Your task to perform on an android device: Clear the cart on amazon. Add "bose soundlink" to the cart on amazon Image 0: 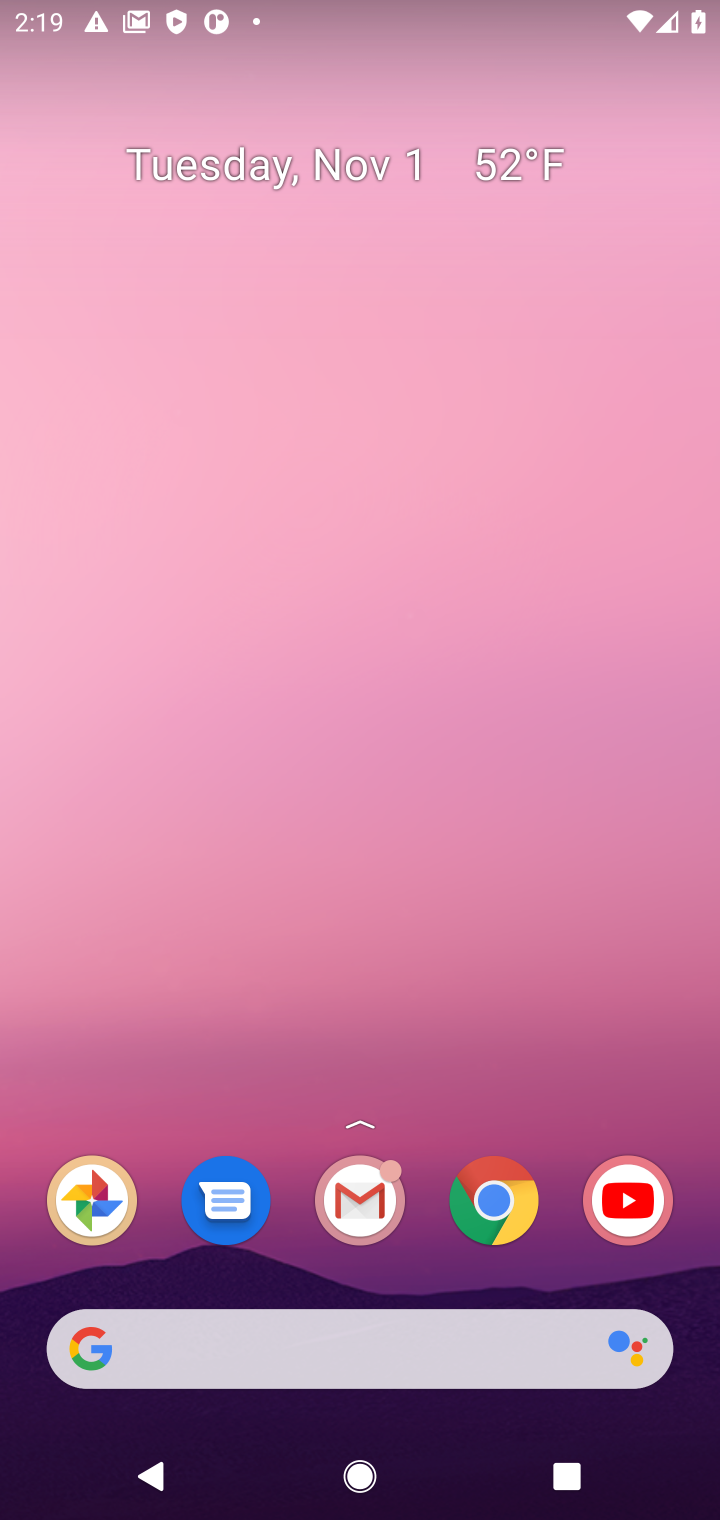
Step 0: click (97, 1352)
Your task to perform on an android device: Clear the cart on amazon. Add "bose soundlink" to the cart on amazon Image 1: 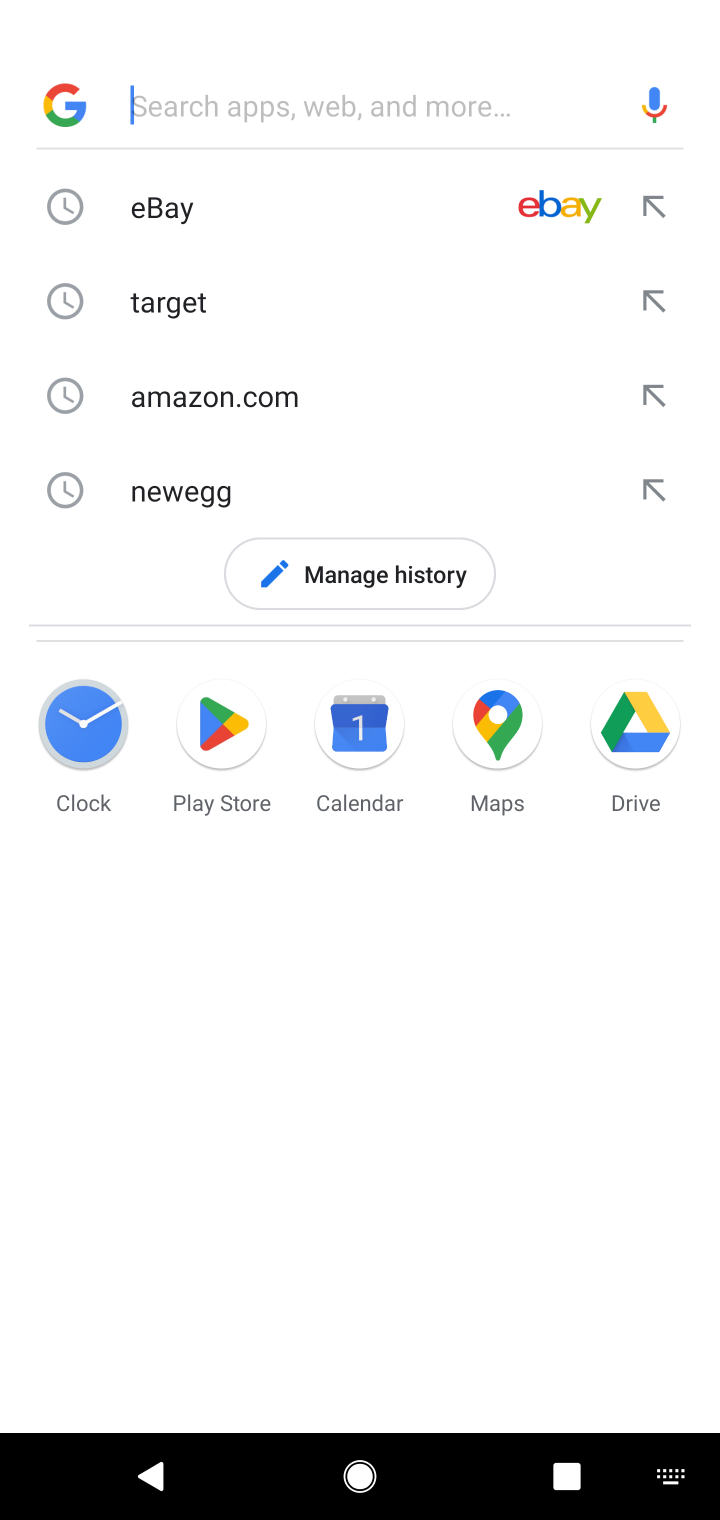
Step 1: type "amazon"
Your task to perform on an android device: Clear the cart on amazon. Add "bose soundlink" to the cart on amazon Image 2: 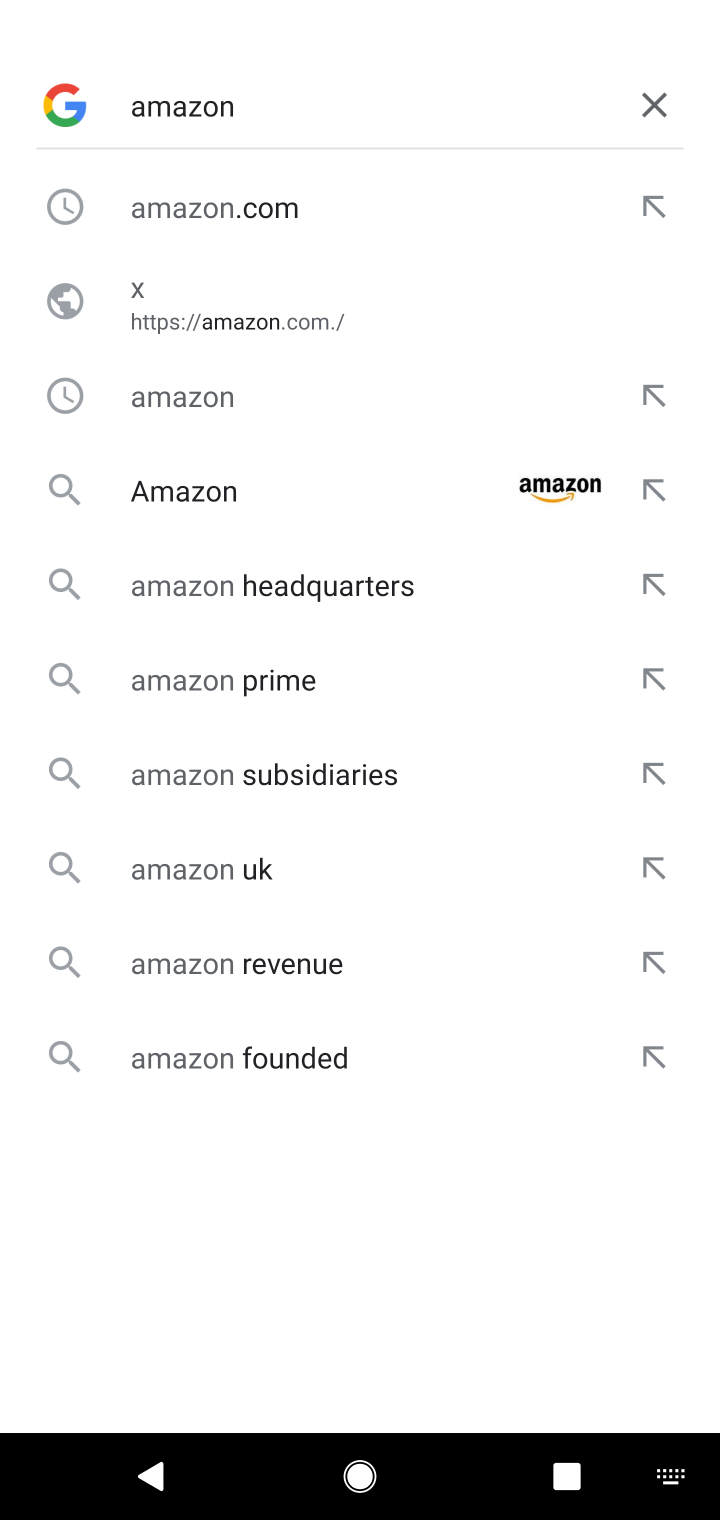
Step 2: click (266, 216)
Your task to perform on an android device: Clear the cart on amazon. Add "bose soundlink" to the cart on amazon Image 3: 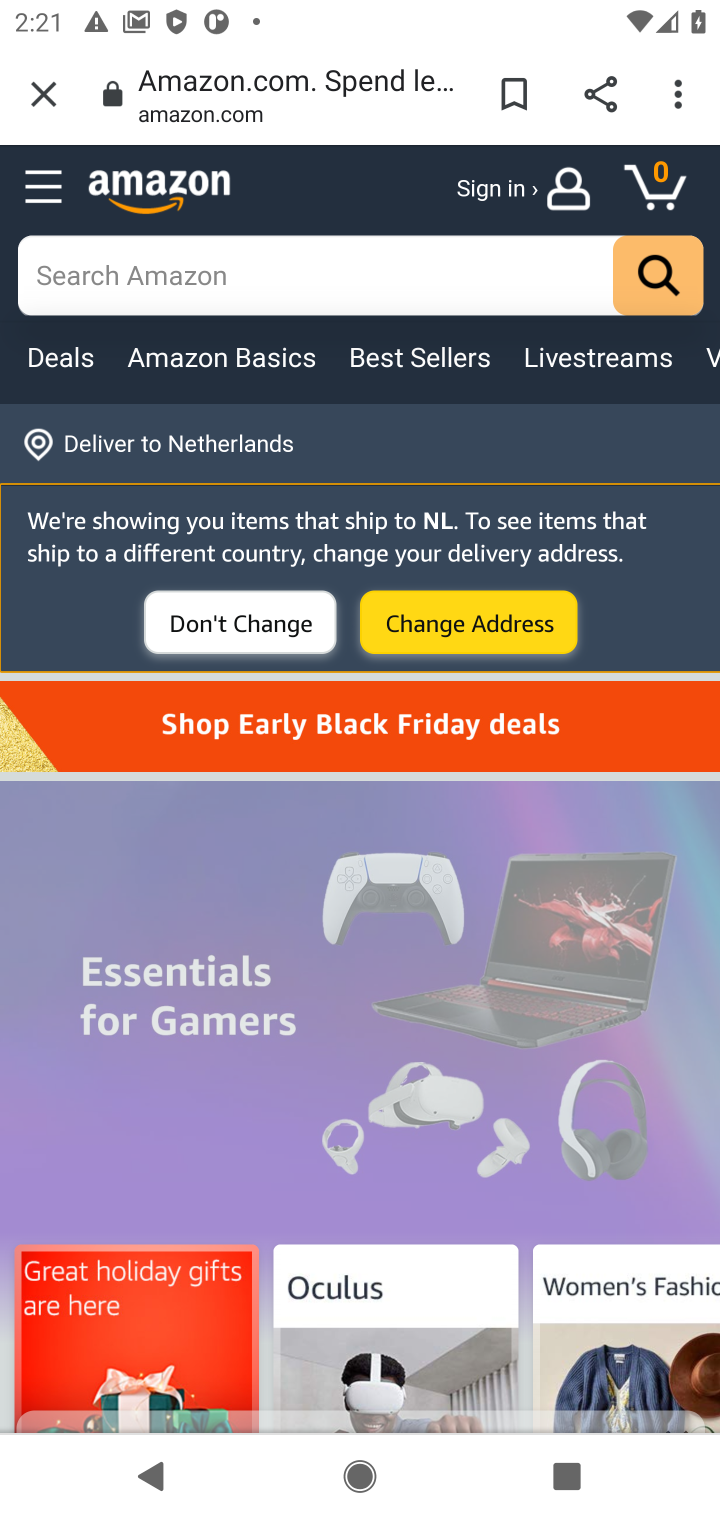
Step 3: click (328, 282)
Your task to perform on an android device: Clear the cart on amazon. Add "bose soundlink" to the cart on amazon Image 4: 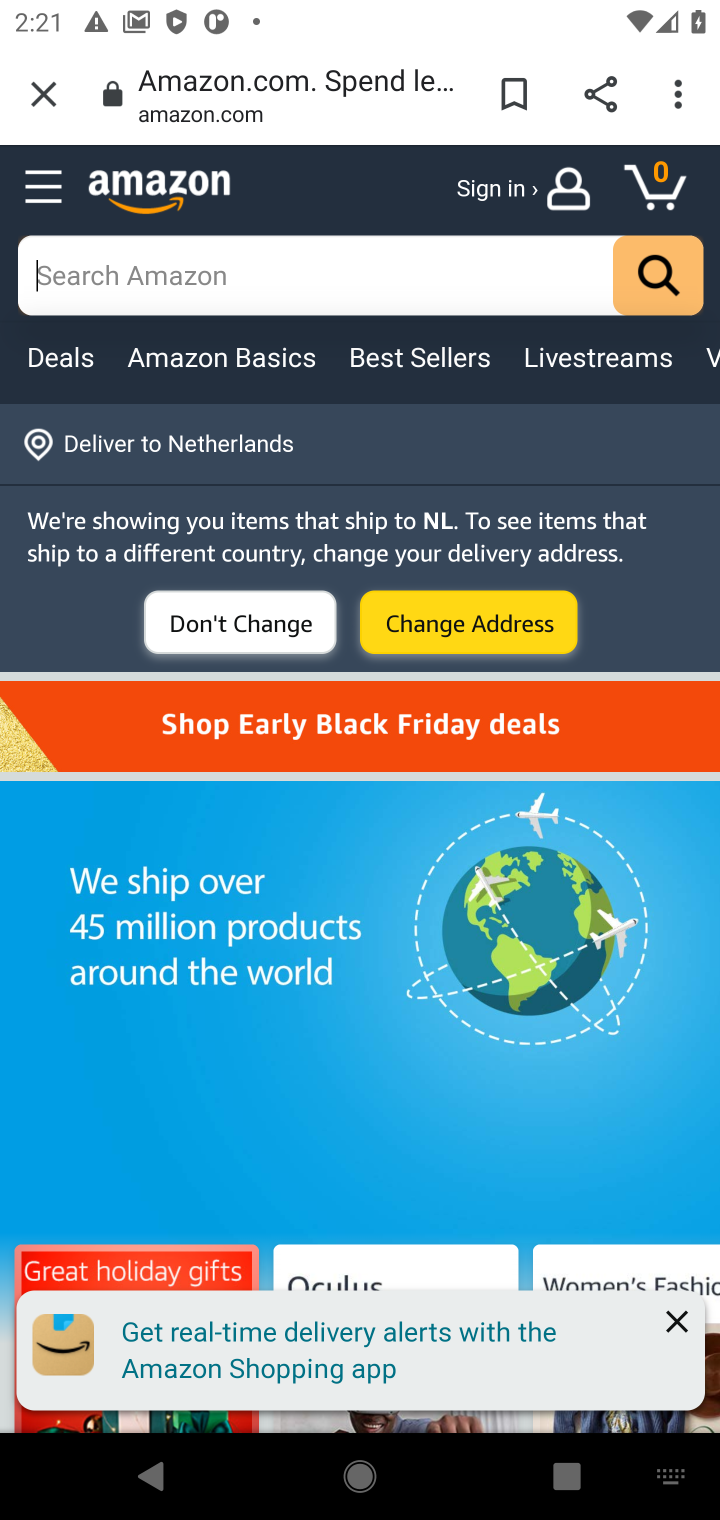
Step 4: type "bose soundlink"
Your task to perform on an android device: Clear the cart on amazon. Add "bose soundlink" to the cart on amazon Image 5: 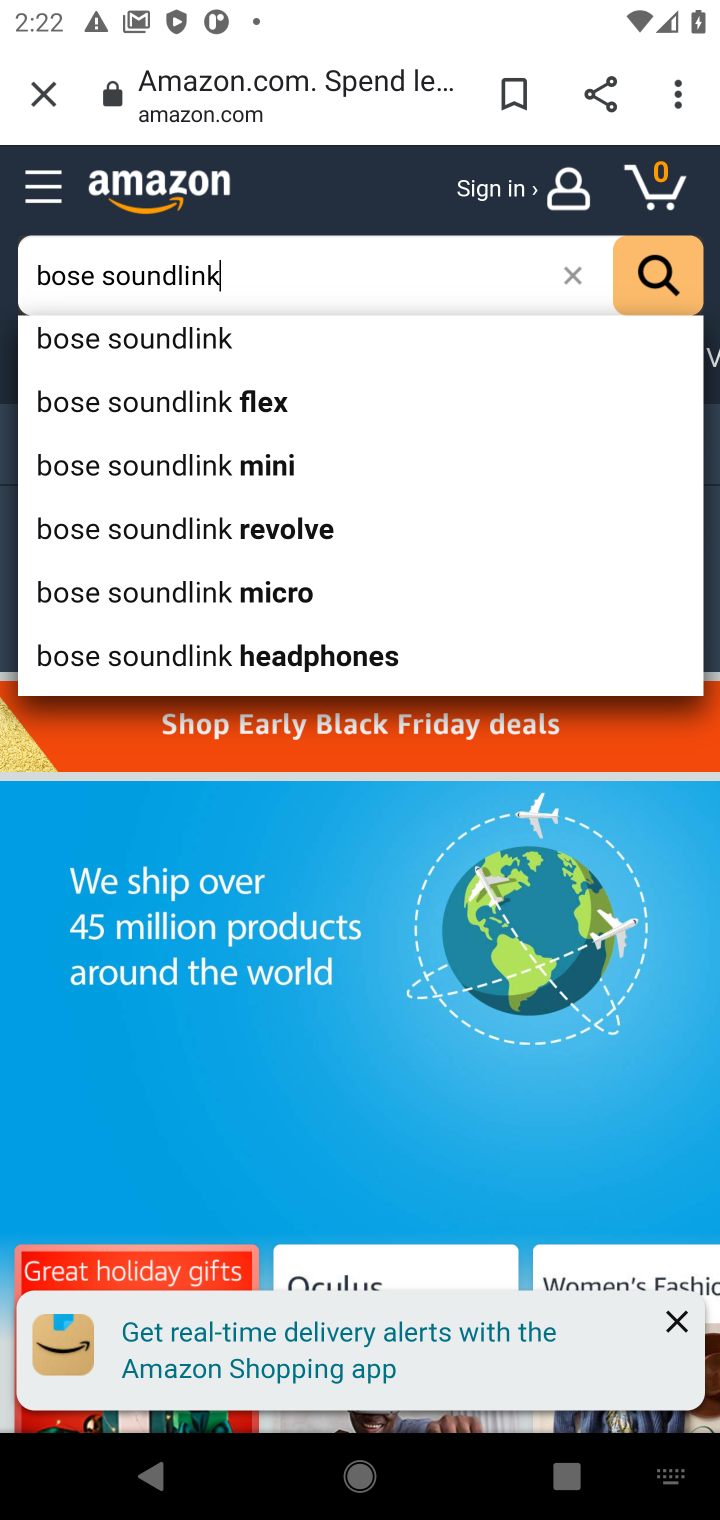
Step 5: click (280, 344)
Your task to perform on an android device: Clear the cart on amazon. Add "bose soundlink" to the cart on amazon Image 6: 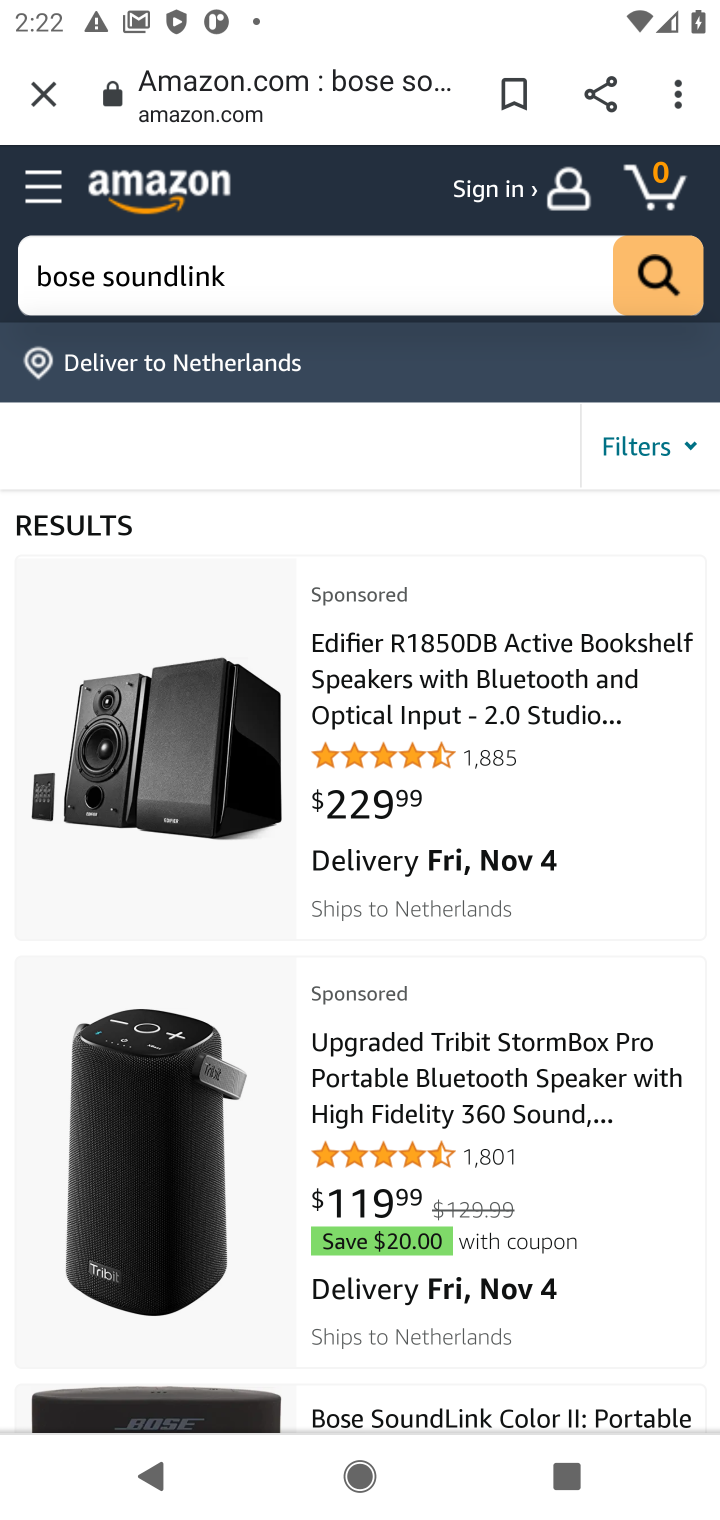
Step 6: click (225, 733)
Your task to perform on an android device: Clear the cart on amazon. Add "bose soundlink" to the cart on amazon Image 7: 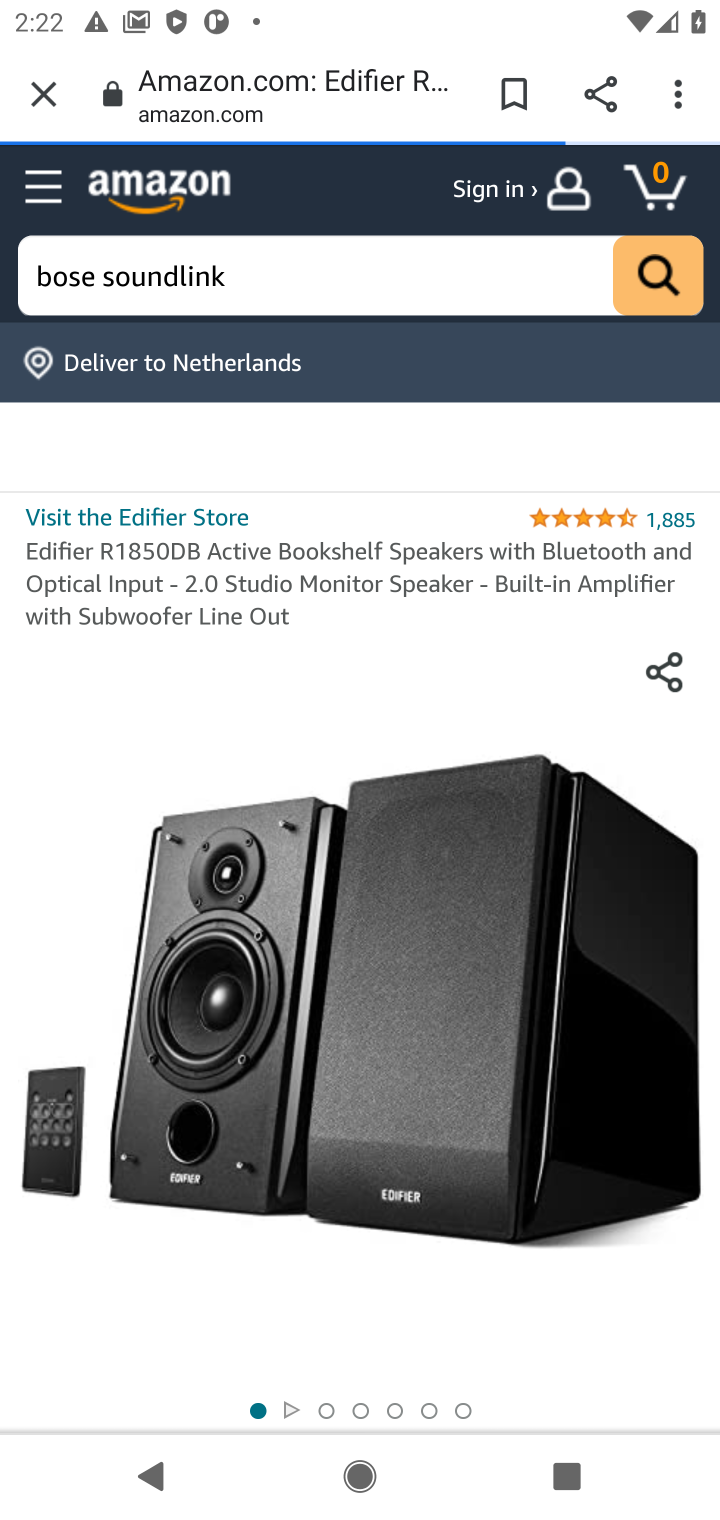
Step 7: drag from (420, 1243) to (466, 497)
Your task to perform on an android device: Clear the cart on amazon. Add "bose soundlink" to the cart on amazon Image 8: 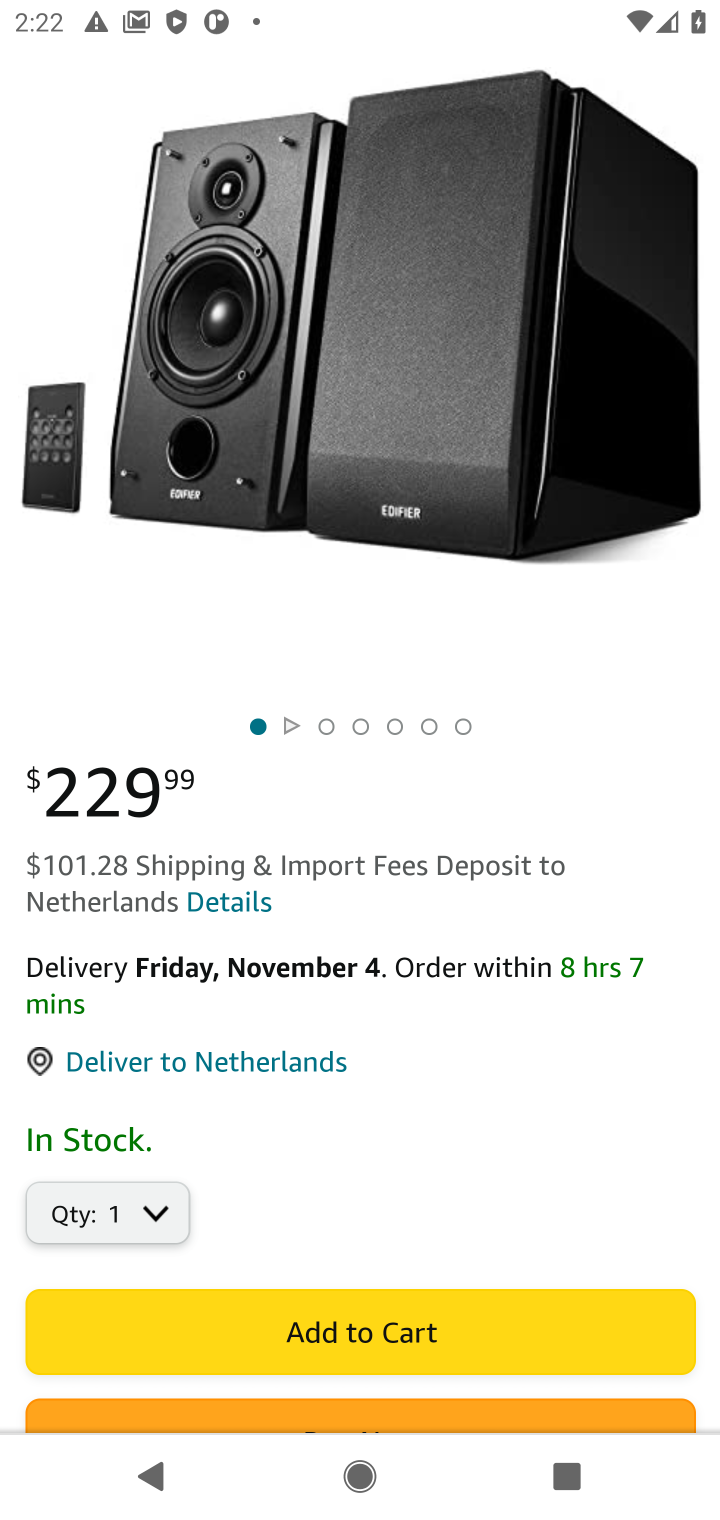
Step 8: drag from (505, 1302) to (525, 143)
Your task to perform on an android device: Clear the cart on amazon. Add "bose soundlink" to the cart on amazon Image 9: 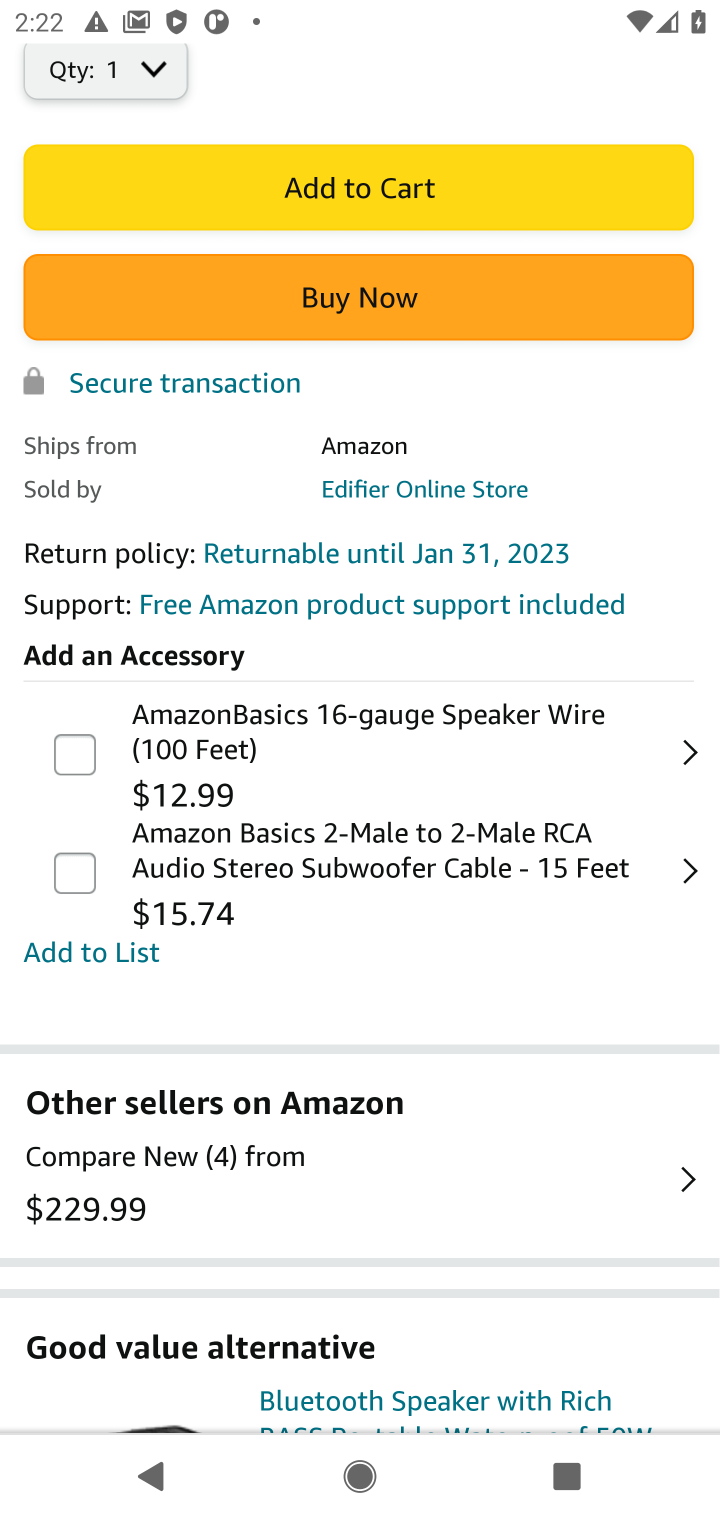
Step 9: click (369, 378)
Your task to perform on an android device: Clear the cart on amazon. Add "bose soundlink" to the cart on amazon Image 10: 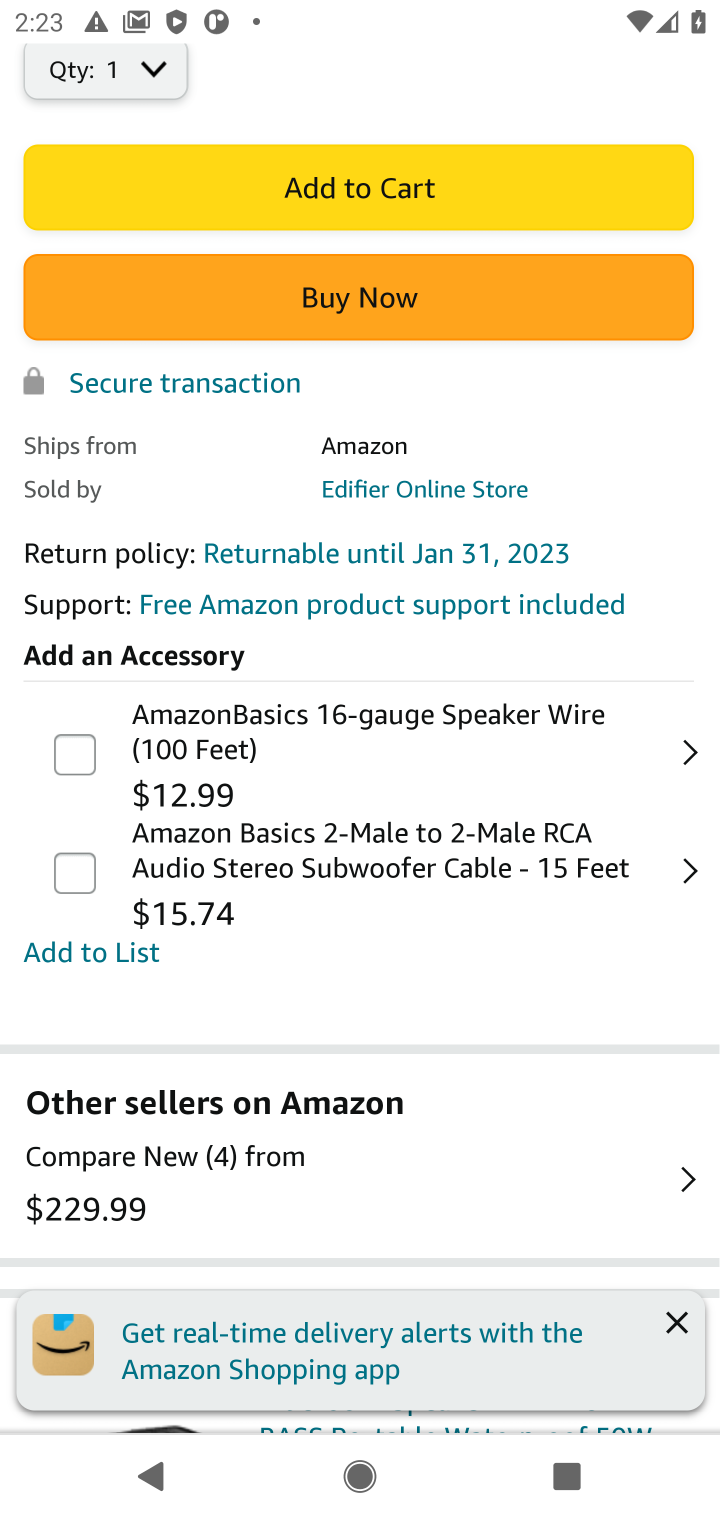
Step 10: click (329, 177)
Your task to perform on an android device: Clear the cart on amazon. Add "bose soundlink" to the cart on amazon Image 11: 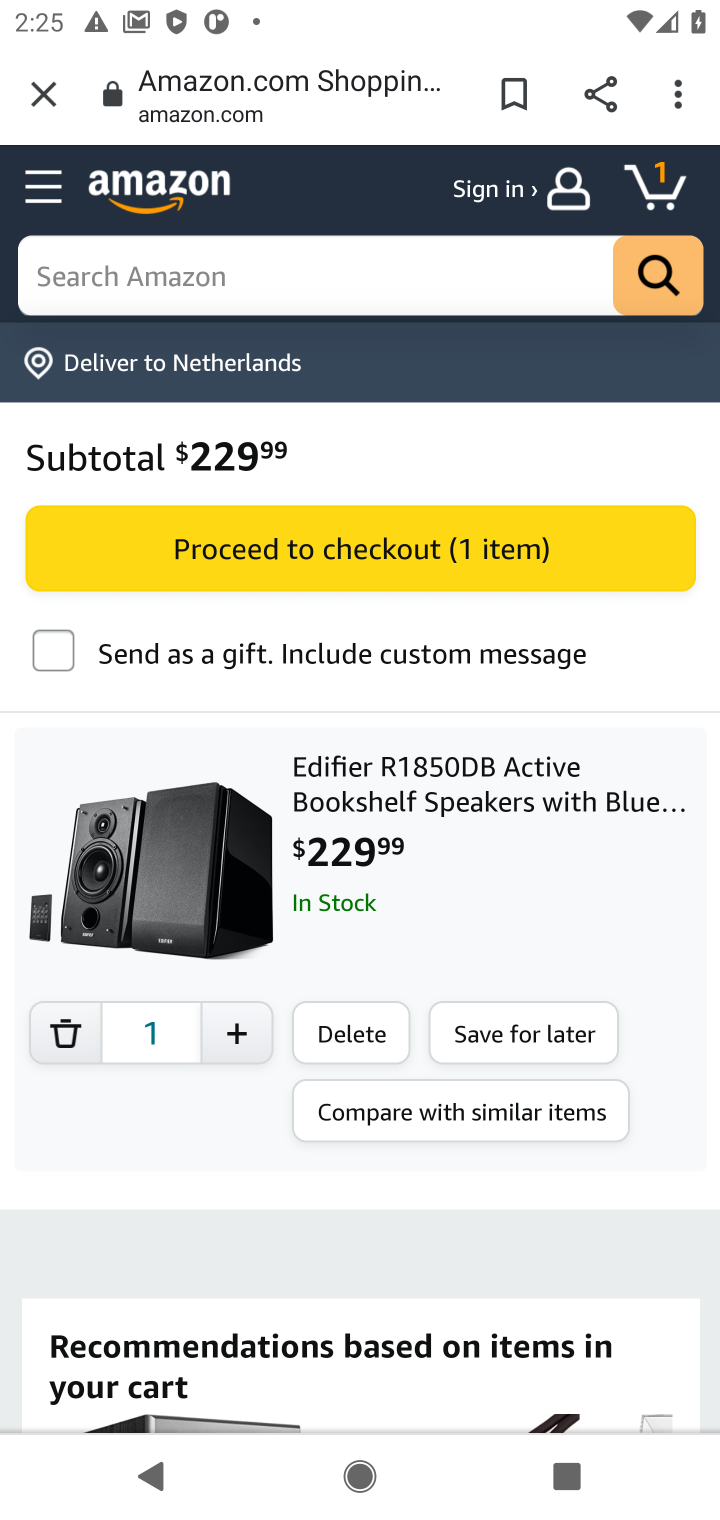
Step 11: task complete